Your task to perform on an android device: Go to wifi settings Image 0: 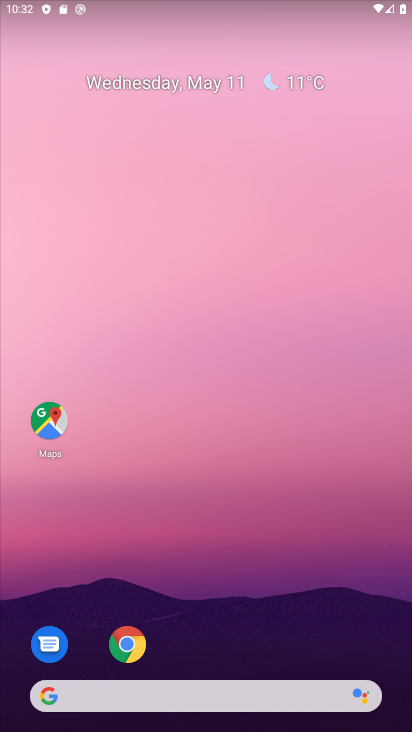
Step 0: drag from (301, 663) to (310, 15)
Your task to perform on an android device: Go to wifi settings Image 1: 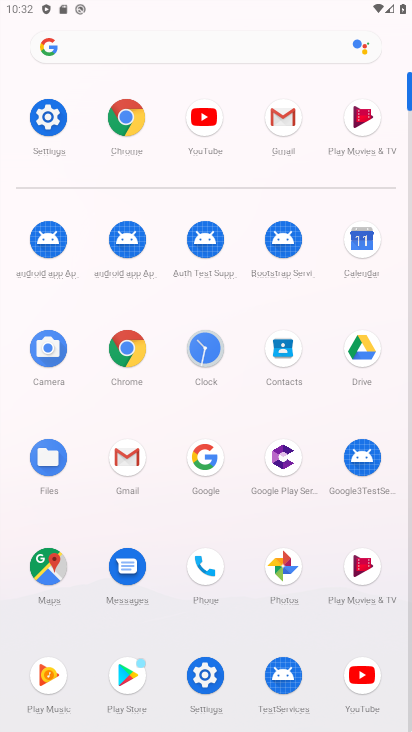
Step 1: click (55, 120)
Your task to perform on an android device: Go to wifi settings Image 2: 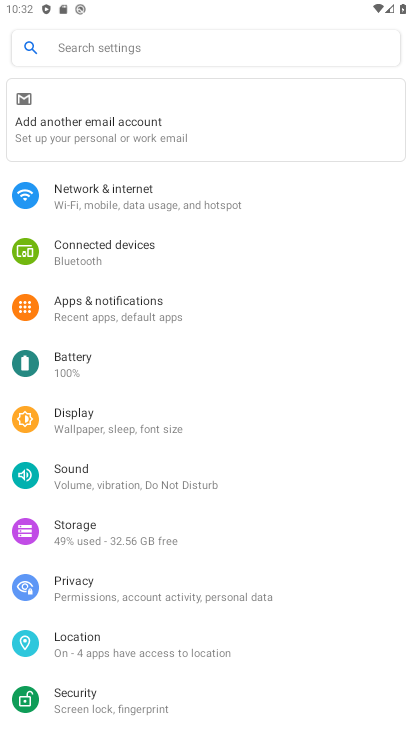
Step 2: click (77, 214)
Your task to perform on an android device: Go to wifi settings Image 3: 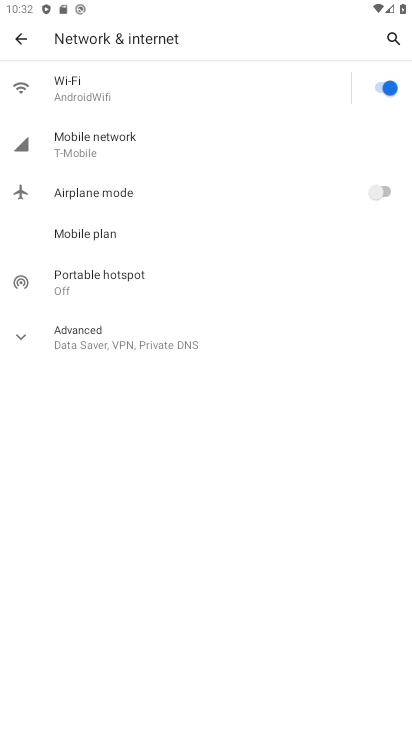
Step 3: click (75, 93)
Your task to perform on an android device: Go to wifi settings Image 4: 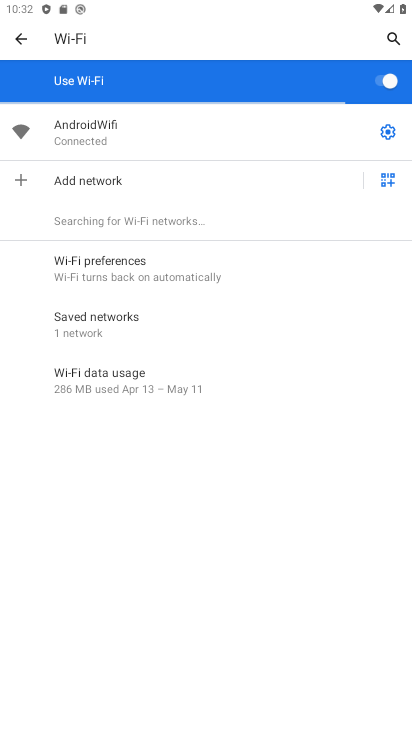
Step 4: task complete